Your task to perform on an android device: Open the Play Movies app and select the watchlist tab. Image 0: 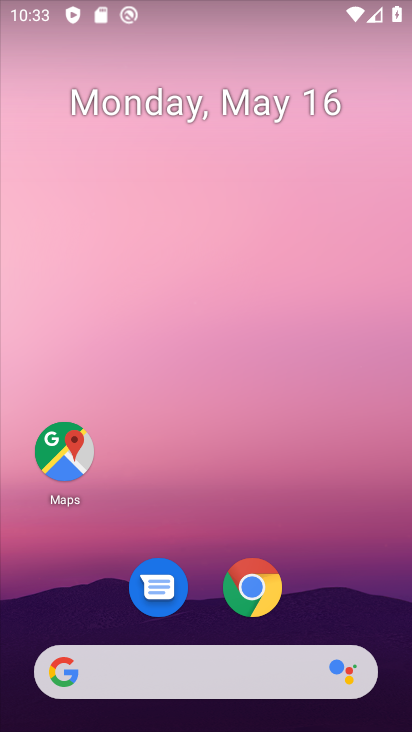
Step 0: drag from (331, 554) to (259, 18)
Your task to perform on an android device: Open the Play Movies app and select the watchlist tab. Image 1: 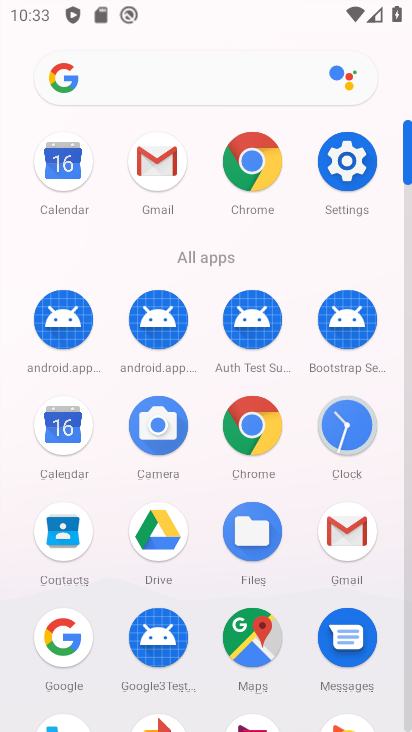
Step 1: drag from (19, 500) to (30, 198)
Your task to perform on an android device: Open the Play Movies app and select the watchlist tab. Image 2: 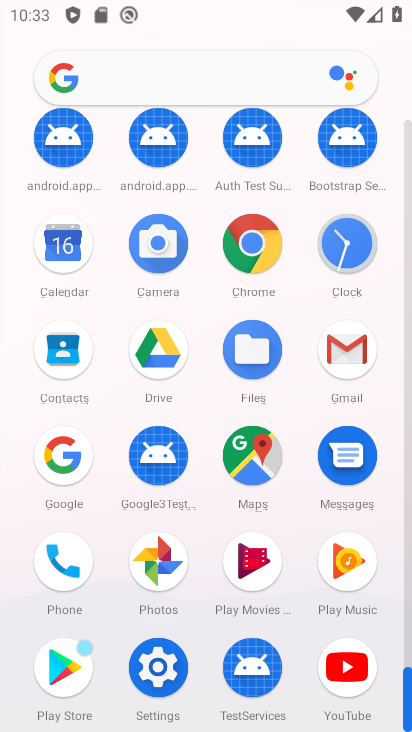
Step 2: drag from (20, 600) to (41, 329)
Your task to perform on an android device: Open the Play Movies app and select the watchlist tab. Image 3: 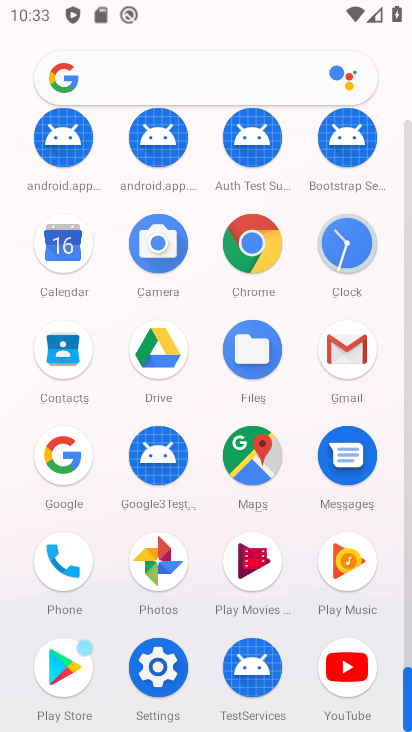
Step 3: click (248, 556)
Your task to perform on an android device: Open the Play Movies app and select the watchlist tab. Image 4: 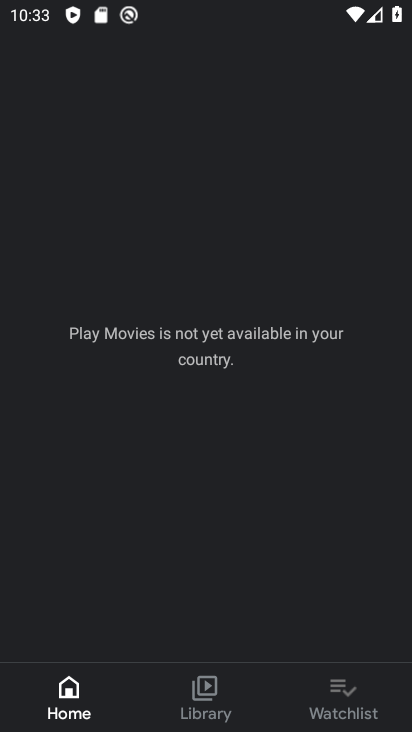
Step 4: click (324, 679)
Your task to perform on an android device: Open the Play Movies app and select the watchlist tab. Image 5: 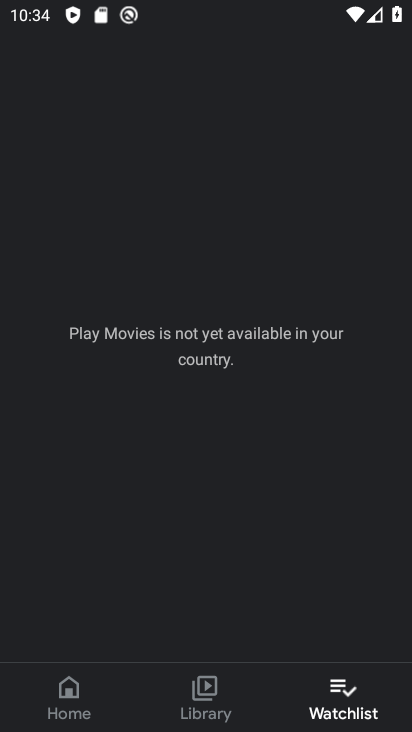
Step 5: task complete